Your task to perform on an android device: add a contact in the contacts app Image 0: 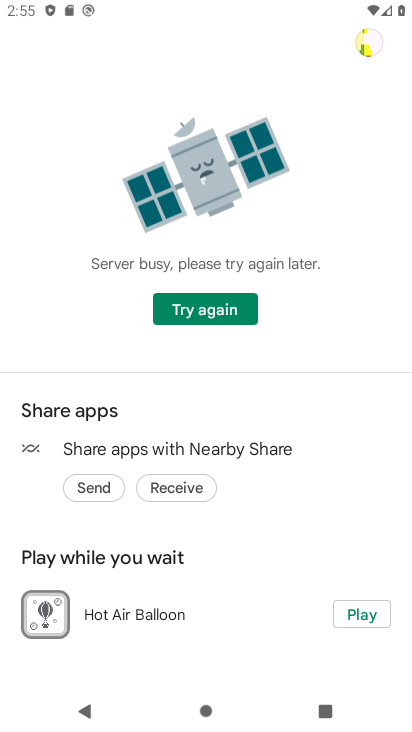
Step 0: press home button
Your task to perform on an android device: add a contact in the contacts app Image 1: 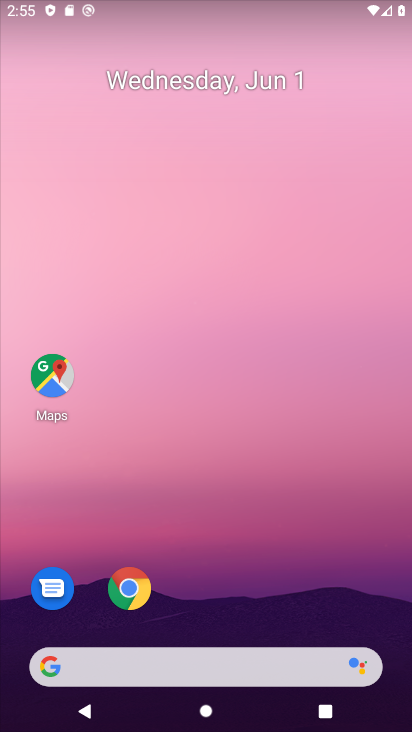
Step 1: drag from (314, 591) to (267, 152)
Your task to perform on an android device: add a contact in the contacts app Image 2: 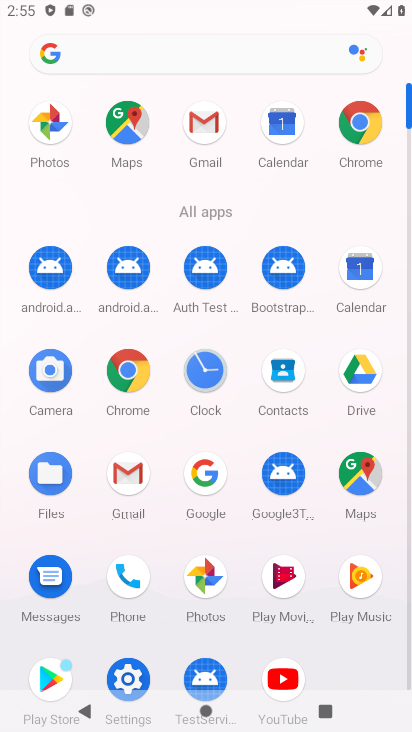
Step 2: click (280, 376)
Your task to perform on an android device: add a contact in the contacts app Image 3: 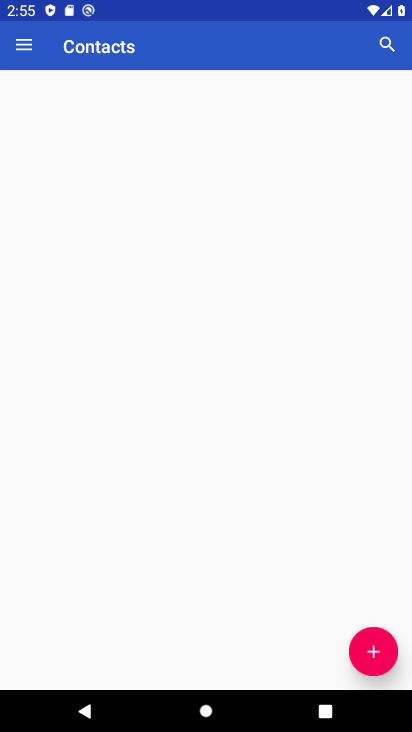
Step 3: click (371, 664)
Your task to perform on an android device: add a contact in the contacts app Image 4: 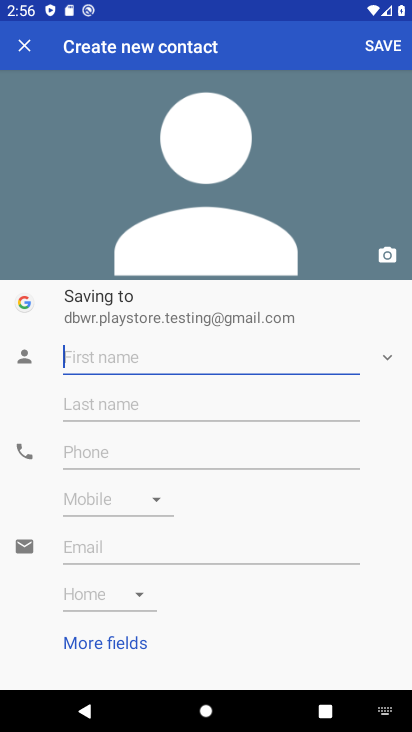
Step 4: type "jj"
Your task to perform on an android device: add a contact in the contacts app Image 5: 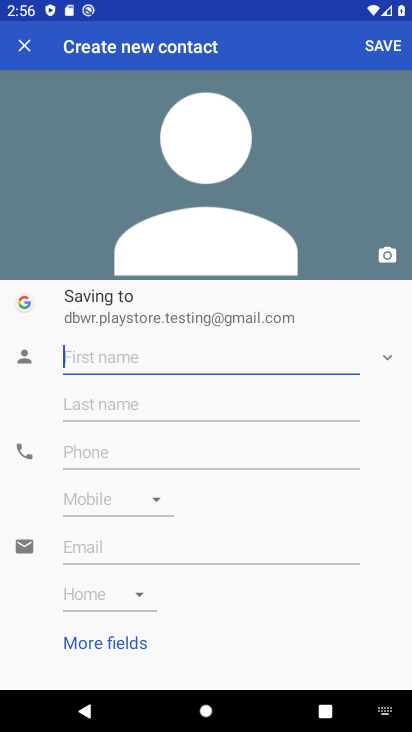
Step 5: click (171, 443)
Your task to perform on an android device: add a contact in the contacts app Image 6: 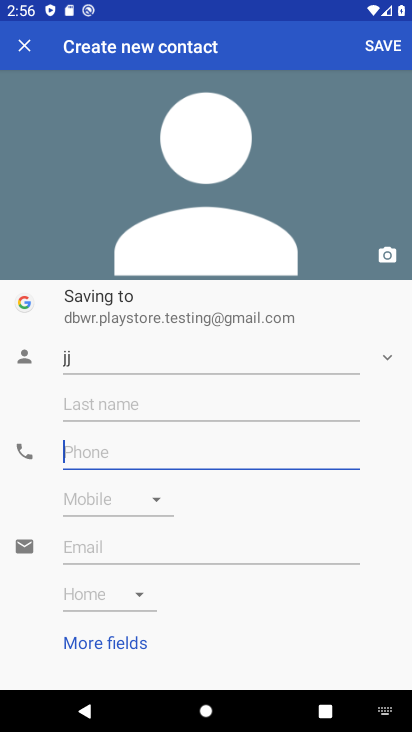
Step 6: type "9999999999"
Your task to perform on an android device: add a contact in the contacts app Image 7: 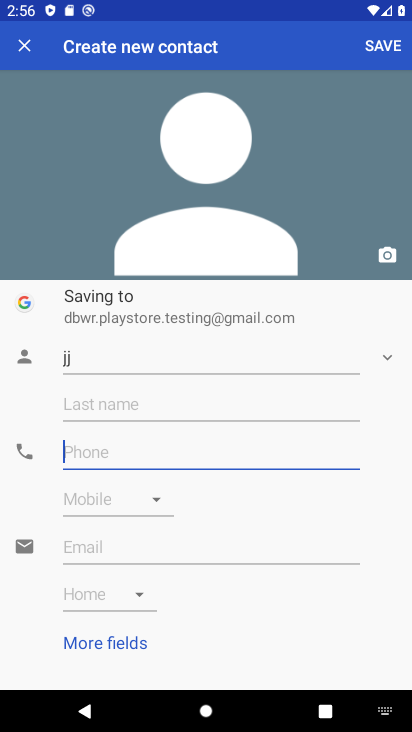
Step 7: click (391, 44)
Your task to perform on an android device: add a contact in the contacts app Image 8: 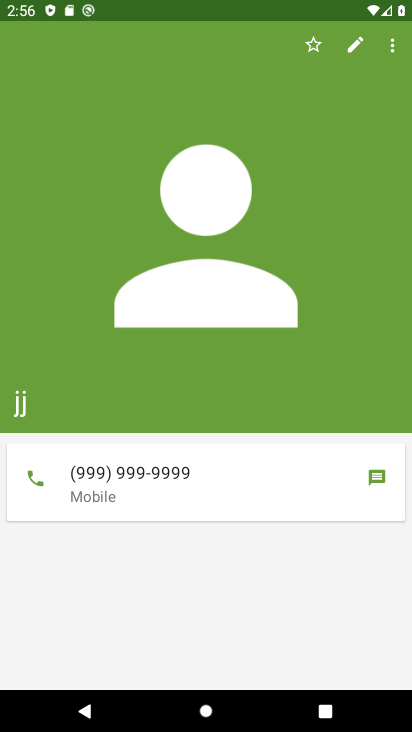
Step 8: task complete